Your task to perform on an android device: Check the weather Image 0: 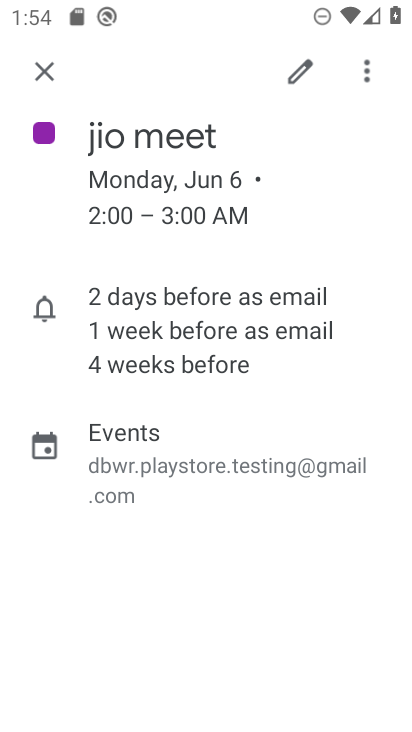
Step 0: press home button
Your task to perform on an android device: Check the weather Image 1: 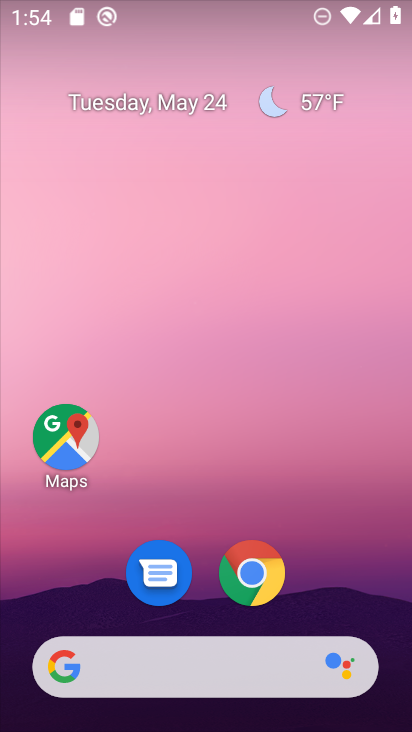
Step 1: click (387, 159)
Your task to perform on an android device: Check the weather Image 2: 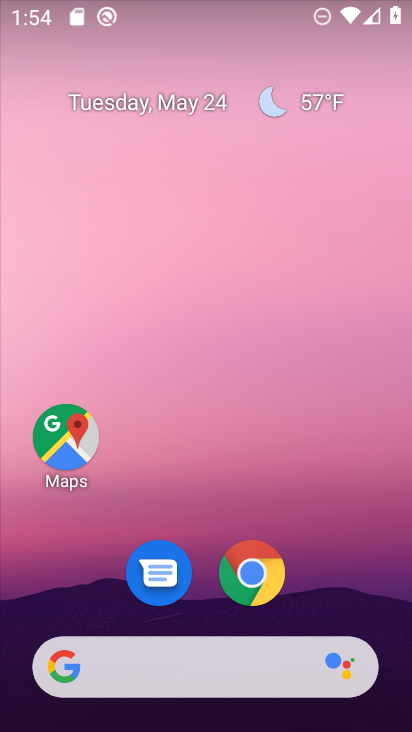
Step 2: drag from (378, 607) to (368, 139)
Your task to perform on an android device: Check the weather Image 3: 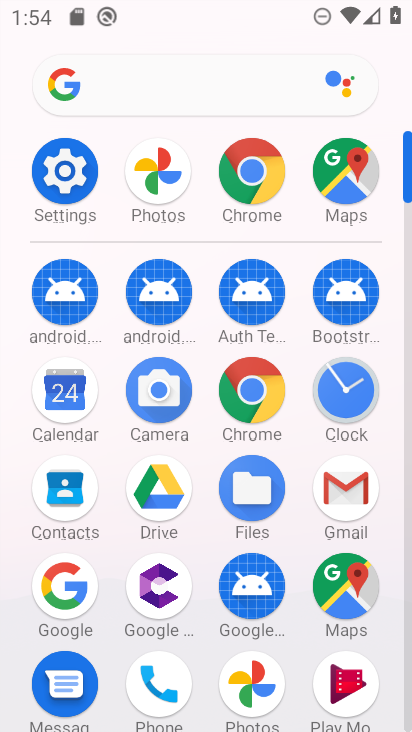
Step 3: click (262, 403)
Your task to perform on an android device: Check the weather Image 4: 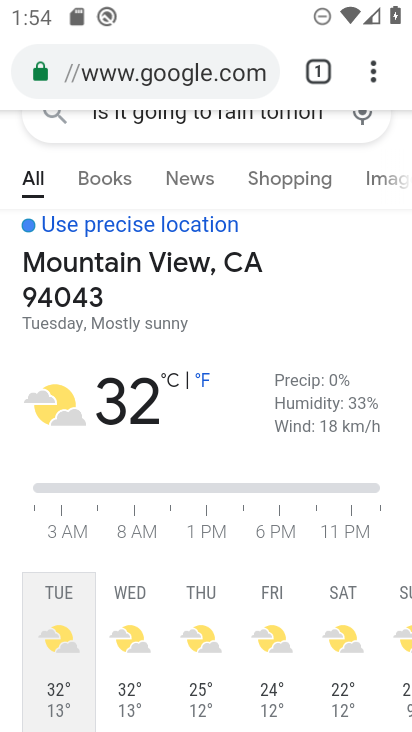
Step 4: click (191, 80)
Your task to perform on an android device: Check the weather Image 5: 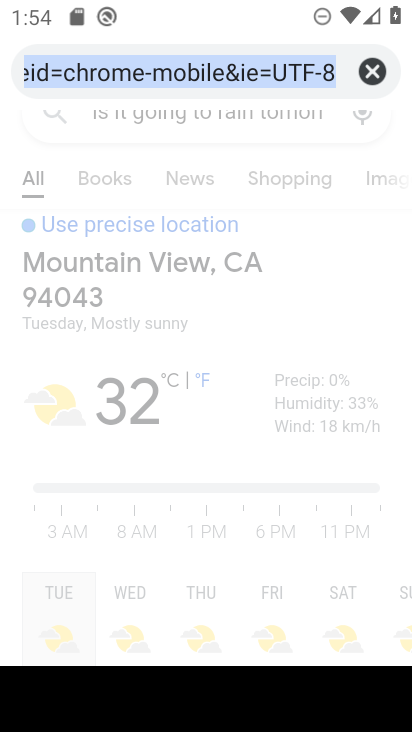
Step 5: click (389, 80)
Your task to perform on an android device: Check the weather Image 6: 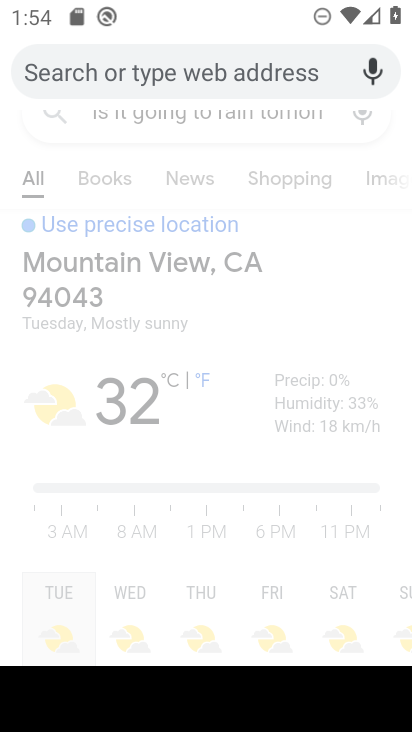
Step 6: type "check the weather"
Your task to perform on an android device: Check the weather Image 7: 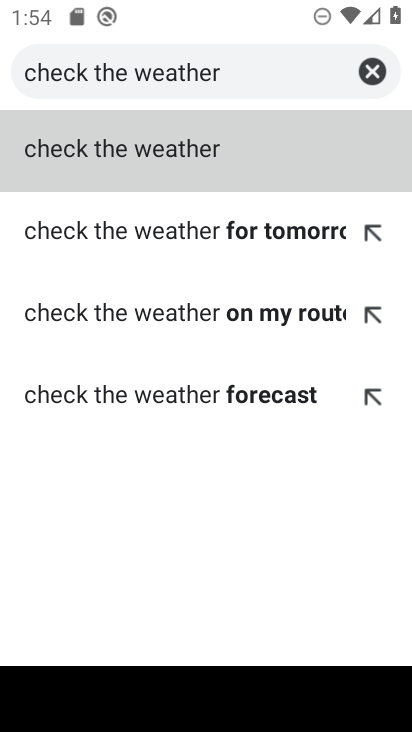
Step 7: click (219, 157)
Your task to perform on an android device: Check the weather Image 8: 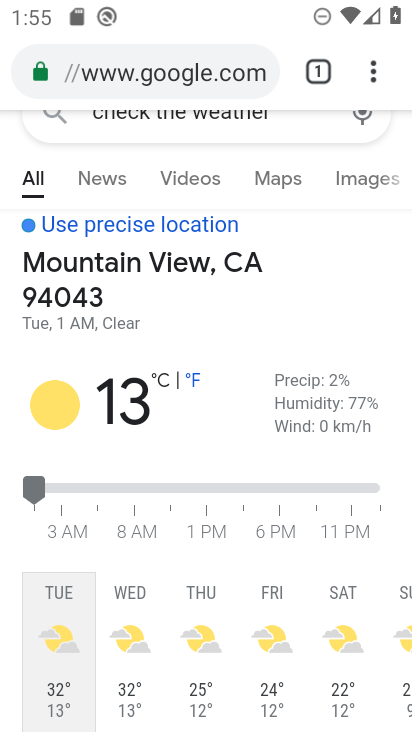
Step 8: task complete